Your task to perform on an android device: Go to Android settings Image 0: 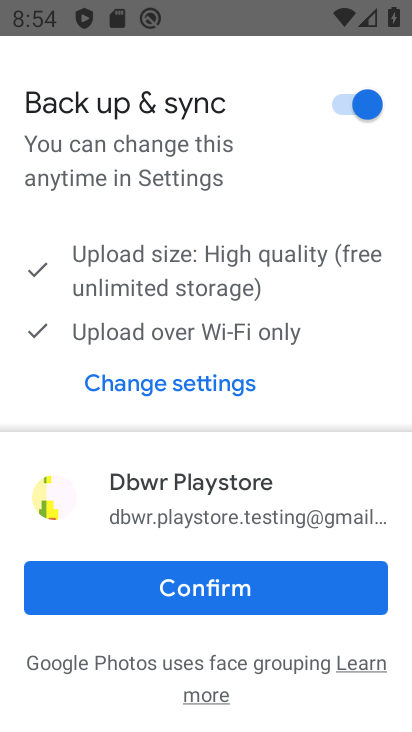
Step 0: press home button
Your task to perform on an android device: Go to Android settings Image 1: 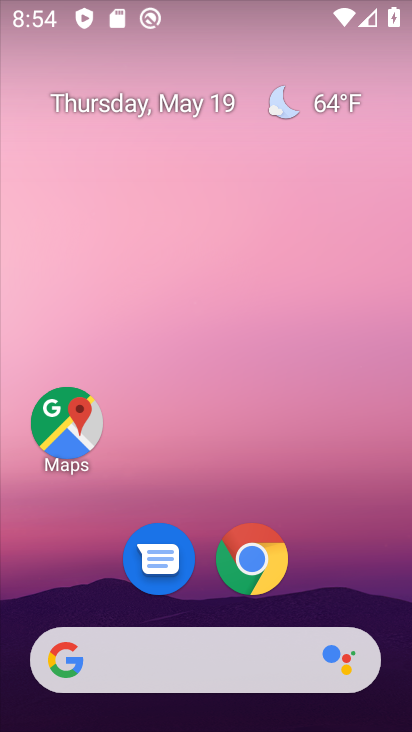
Step 1: drag from (221, 728) to (213, 108)
Your task to perform on an android device: Go to Android settings Image 2: 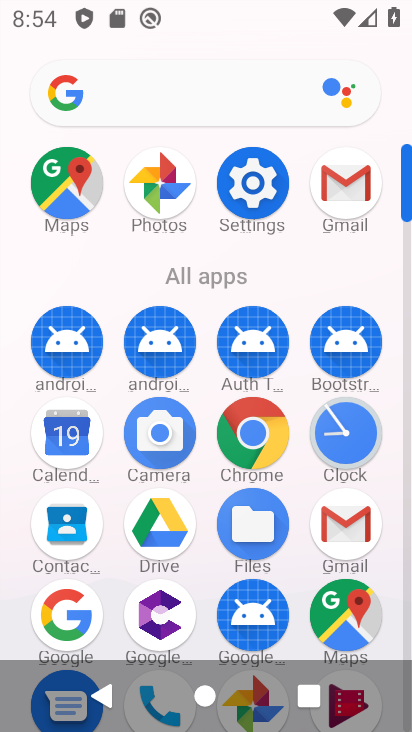
Step 2: click (251, 194)
Your task to perform on an android device: Go to Android settings Image 3: 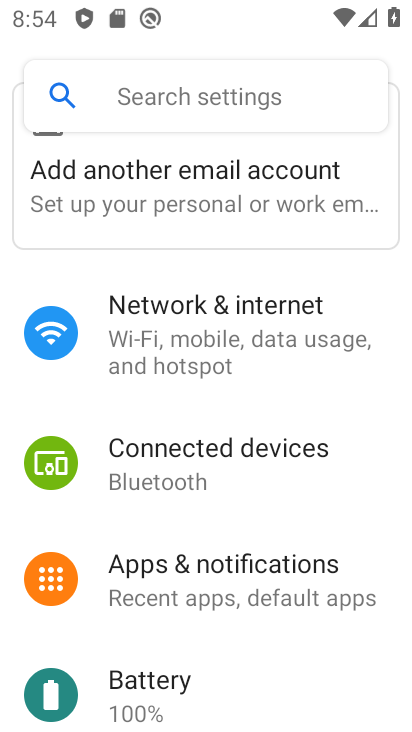
Step 3: task complete